Your task to perform on an android device: What's the weather? Image 0: 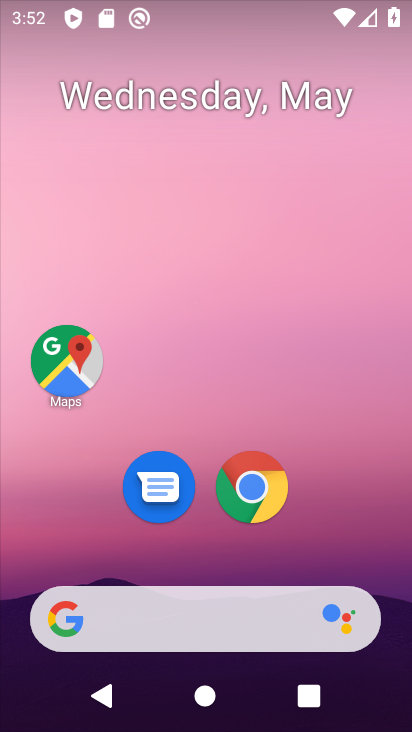
Step 0: click (198, 230)
Your task to perform on an android device: What's the weather? Image 1: 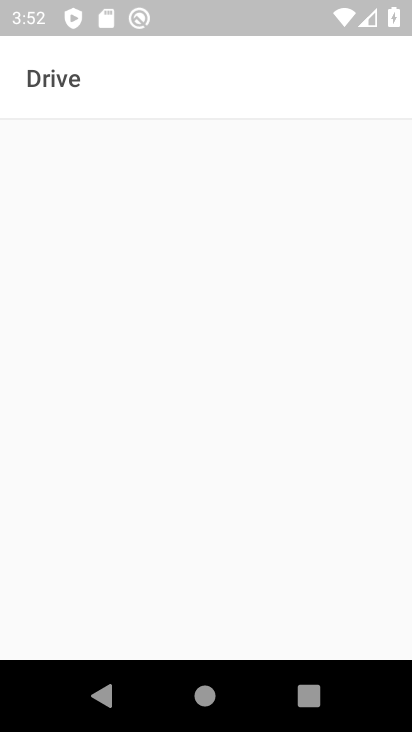
Step 1: drag from (189, 651) to (216, 368)
Your task to perform on an android device: What's the weather? Image 2: 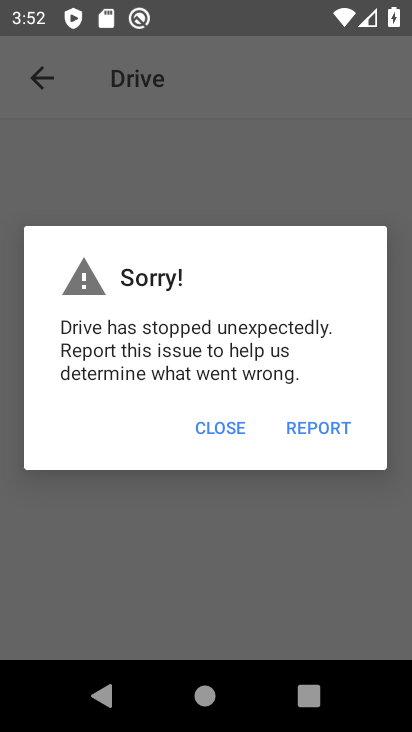
Step 2: press home button
Your task to perform on an android device: What's the weather? Image 3: 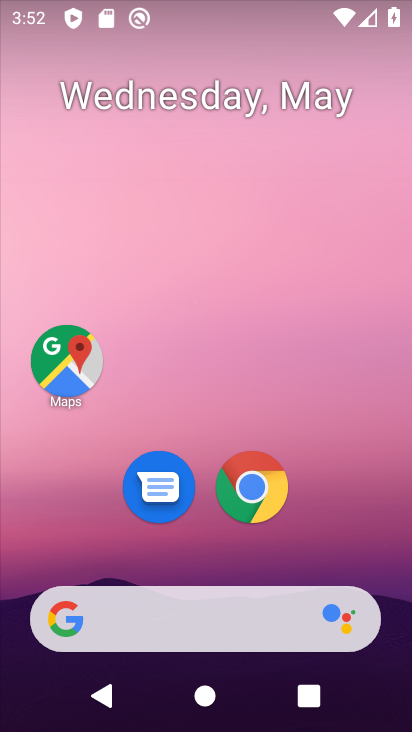
Step 3: click (166, 629)
Your task to perform on an android device: What's the weather? Image 4: 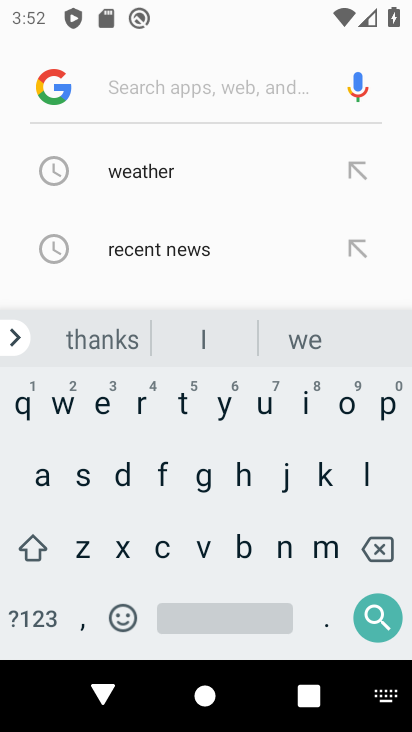
Step 4: click (155, 170)
Your task to perform on an android device: What's the weather? Image 5: 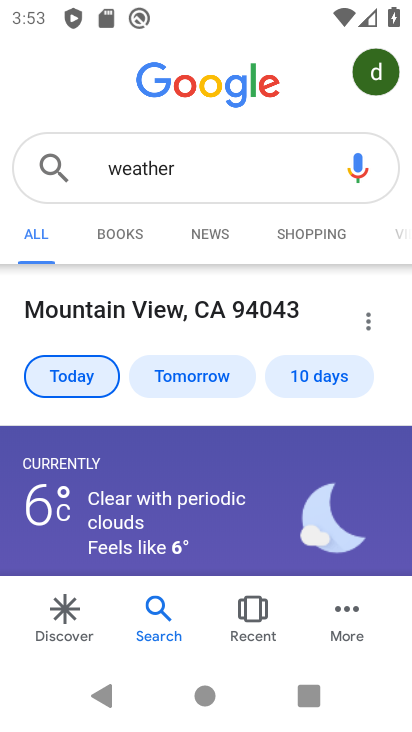
Step 5: task complete